Your task to perform on an android device: Go to Yahoo.com Image 0: 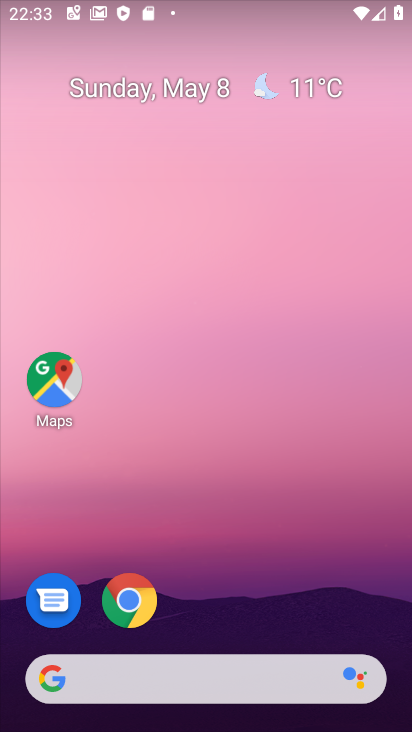
Step 0: click (122, 587)
Your task to perform on an android device: Go to Yahoo.com Image 1: 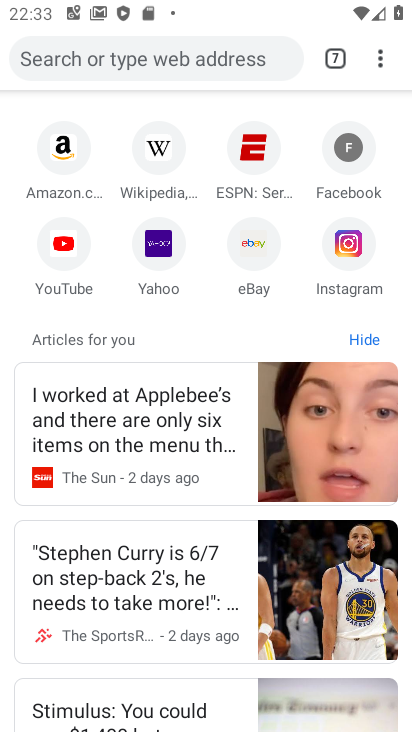
Step 1: click (155, 250)
Your task to perform on an android device: Go to Yahoo.com Image 2: 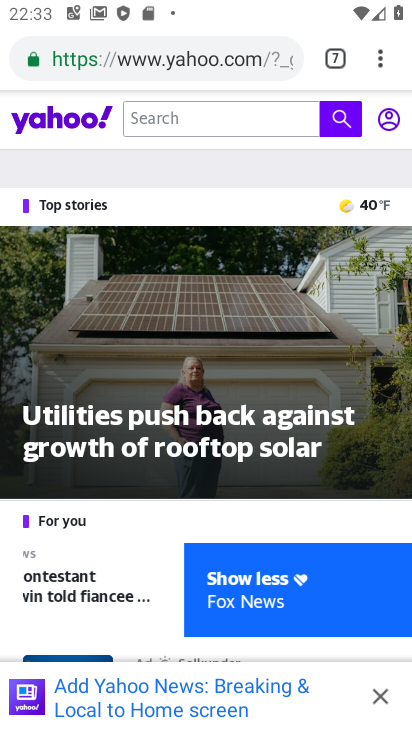
Step 2: task complete